Your task to perform on an android device: open a new tab in the chrome app Image 0: 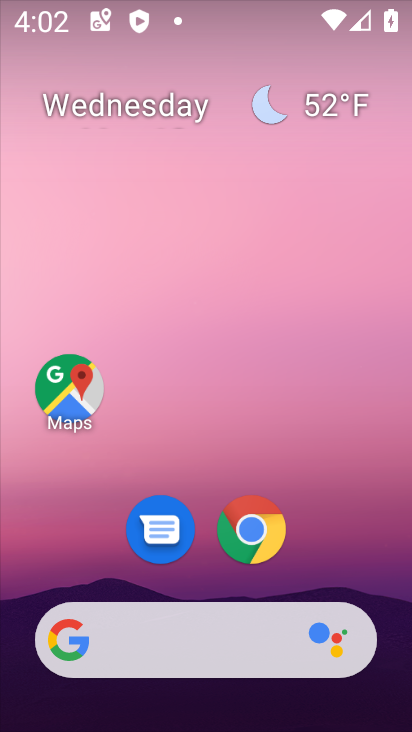
Step 0: click (253, 529)
Your task to perform on an android device: open a new tab in the chrome app Image 1: 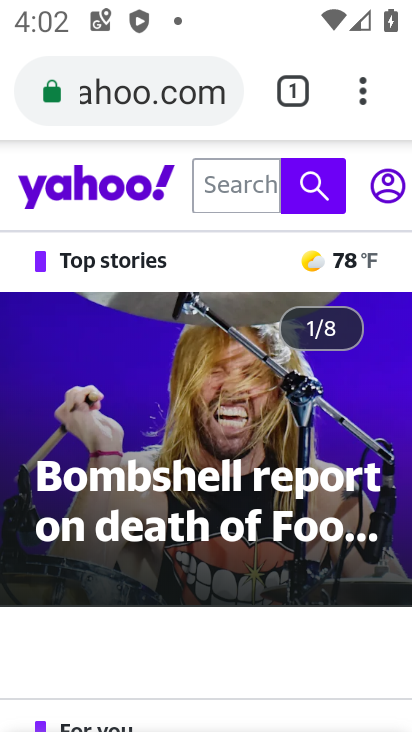
Step 1: click (362, 93)
Your task to perform on an android device: open a new tab in the chrome app Image 2: 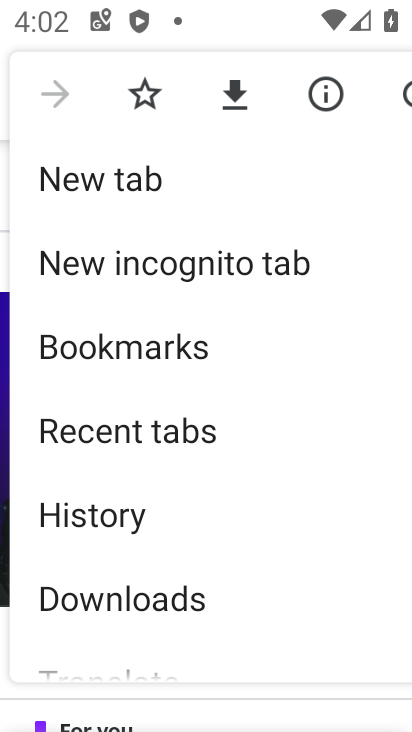
Step 2: drag from (157, 385) to (208, 457)
Your task to perform on an android device: open a new tab in the chrome app Image 3: 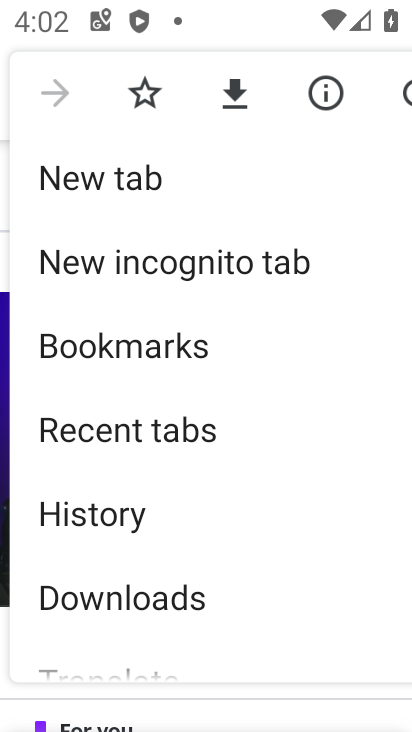
Step 3: click (147, 180)
Your task to perform on an android device: open a new tab in the chrome app Image 4: 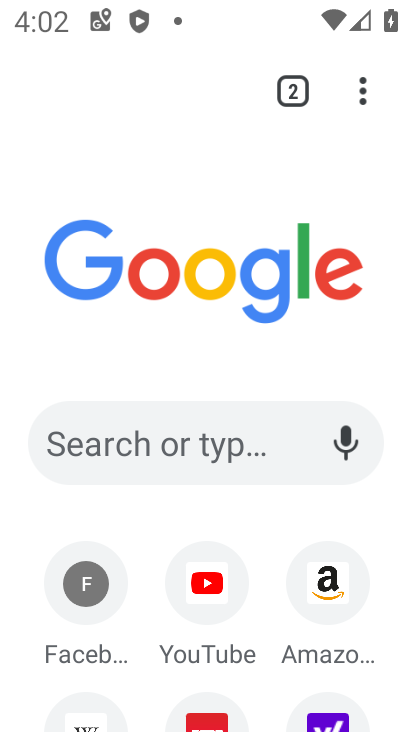
Step 4: task complete